Your task to perform on an android device: Open Google Image 0: 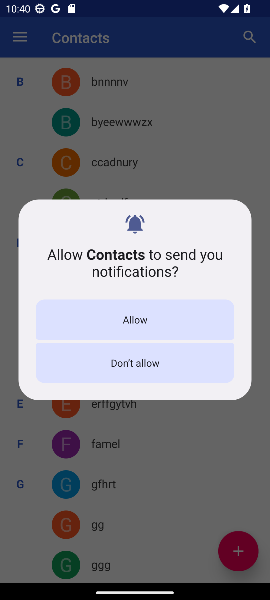
Step 0: press home button
Your task to perform on an android device: Open Google Image 1: 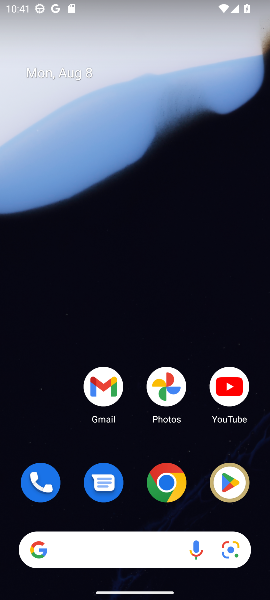
Step 1: drag from (140, 447) to (150, 35)
Your task to perform on an android device: Open Google Image 2: 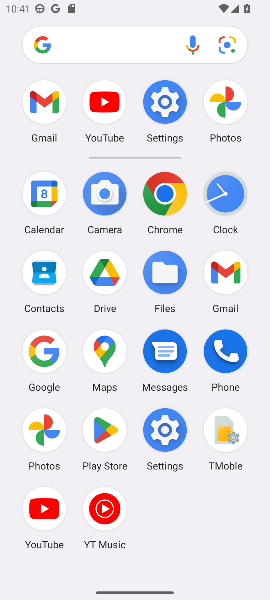
Step 2: click (42, 337)
Your task to perform on an android device: Open Google Image 3: 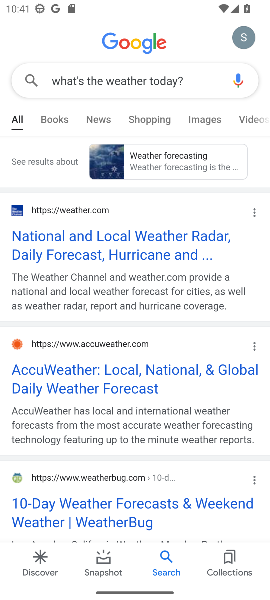
Step 3: task complete